Your task to perform on an android device: Show me the alarms in the clock app Image 0: 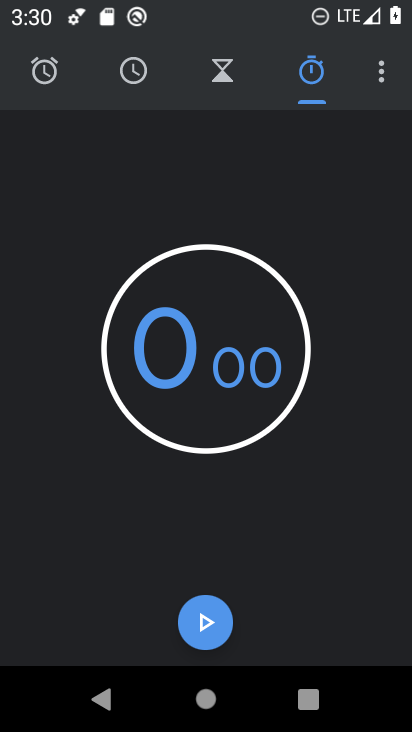
Step 0: click (48, 85)
Your task to perform on an android device: Show me the alarms in the clock app Image 1: 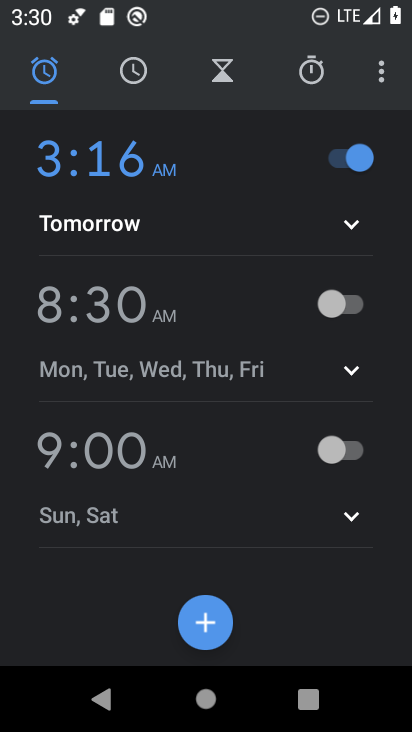
Step 1: click (207, 608)
Your task to perform on an android device: Show me the alarms in the clock app Image 2: 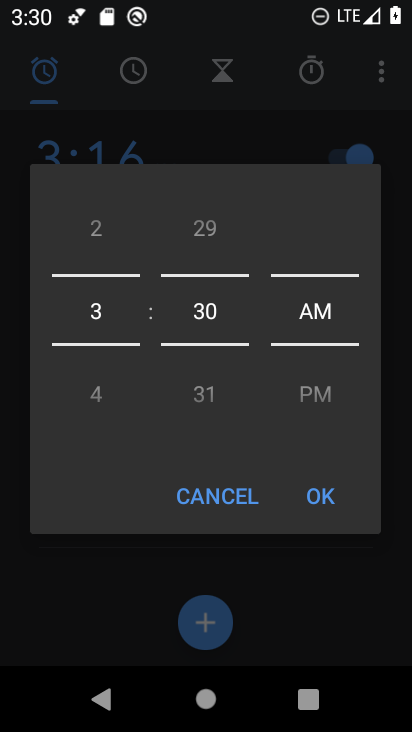
Step 2: click (245, 497)
Your task to perform on an android device: Show me the alarms in the clock app Image 3: 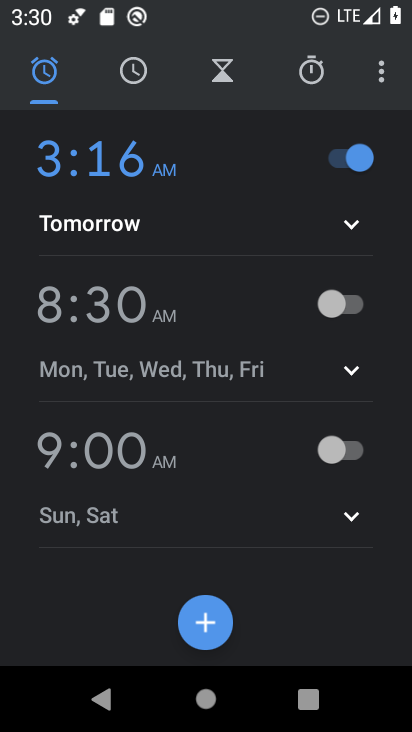
Step 3: task complete